Your task to perform on an android device: Go to Maps Image 0: 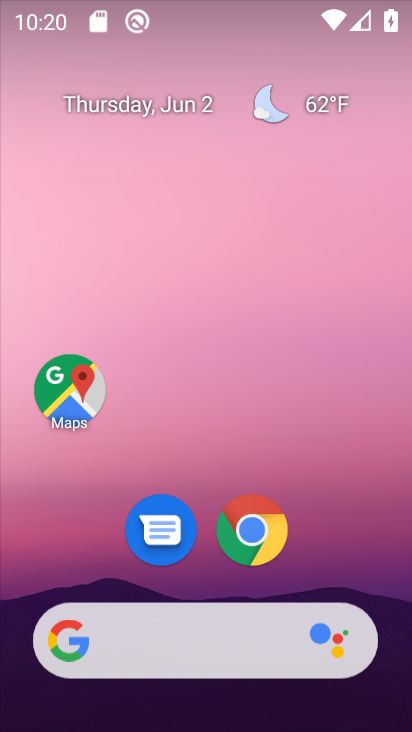
Step 0: click (210, 99)
Your task to perform on an android device: Go to Maps Image 1: 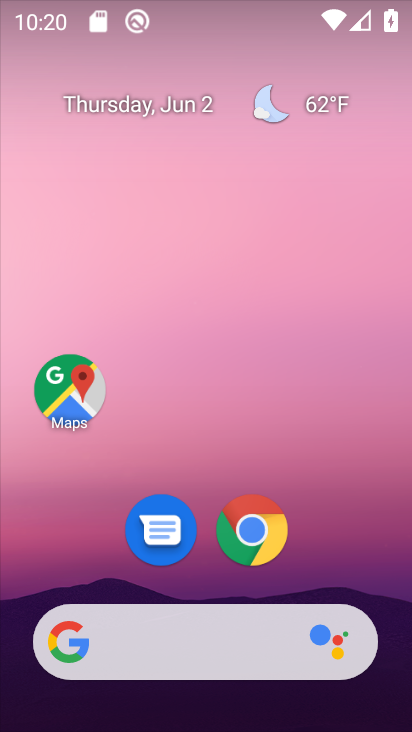
Step 1: click (253, 161)
Your task to perform on an android device: Go to Maps Image 2: 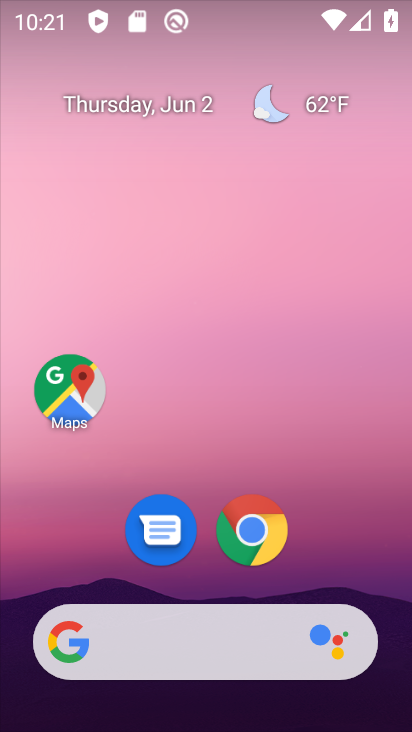
Step 2: drag from (246, 524) to (198, 58)
Your task to perform on an android device: Go to Maps Image 3: 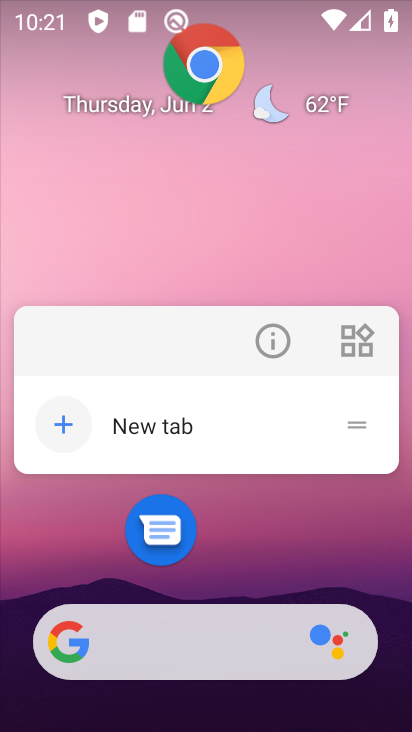
Step 3: drag from (234, 696) to (189, 150)
Your task to perform on an android device: Go to Maps Image 4: 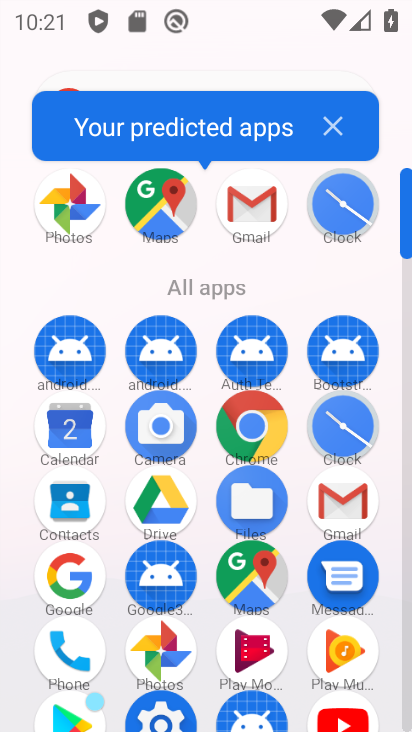
Step 4: drag from (129, 262) to (267, 245)
Your task to perform on an android device: Go to Maps Image 5: 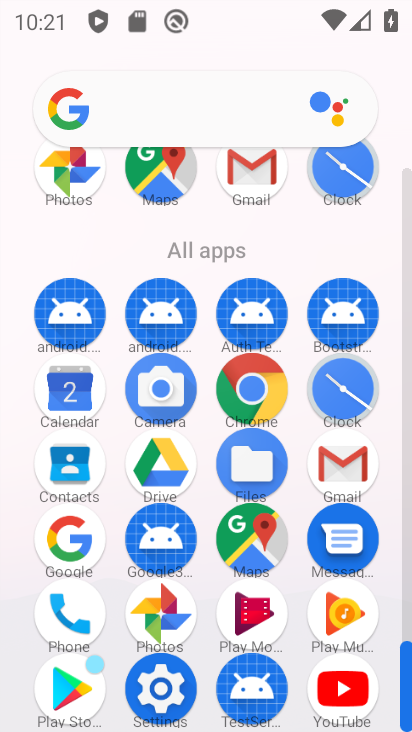
Step 5: click (316, 278)
Your task to perform on an android device: Go to Maps Image 6: 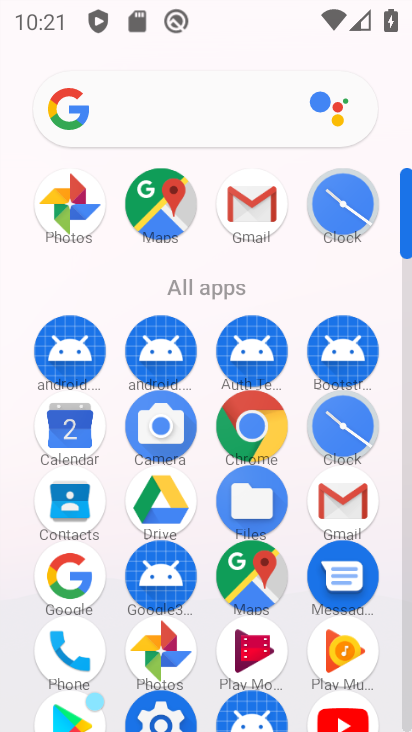
Step 6: drag from (154, 557) to (142, 229)
Your task to perform on an android device: Go to Maps Image 7: 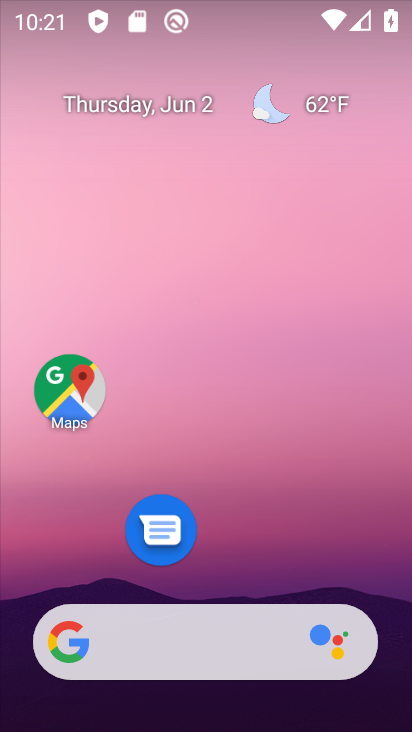
Step 7: click (211, 301)
Your task to perform on an android device: Go to Maps Image 8: 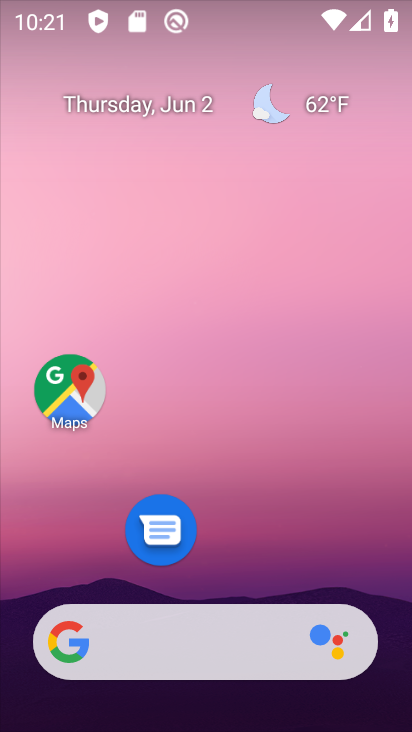
Step 8: click (69, 401)
Your task to perform on an android device: Go to Maps Image 9: 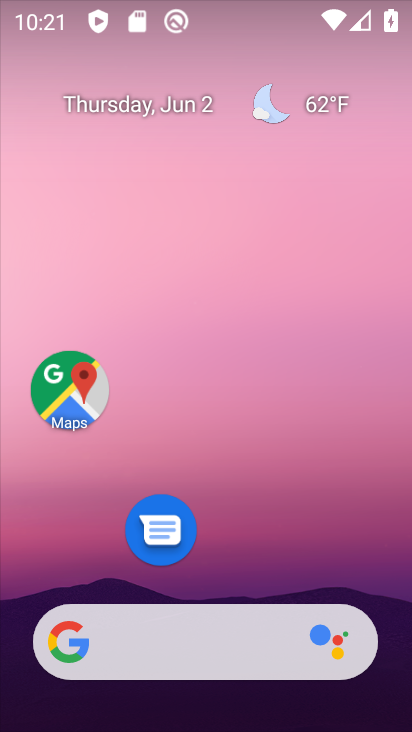
Step 9: click (87, 391)
Your task to perform on an android device: Go to Maps Image 10: 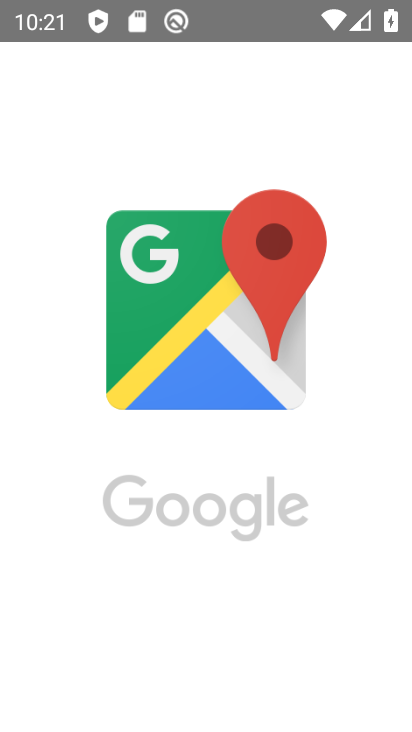
Step 10: click (83, 401)
Your task to perform on an android device: Go to Maps Image 11: 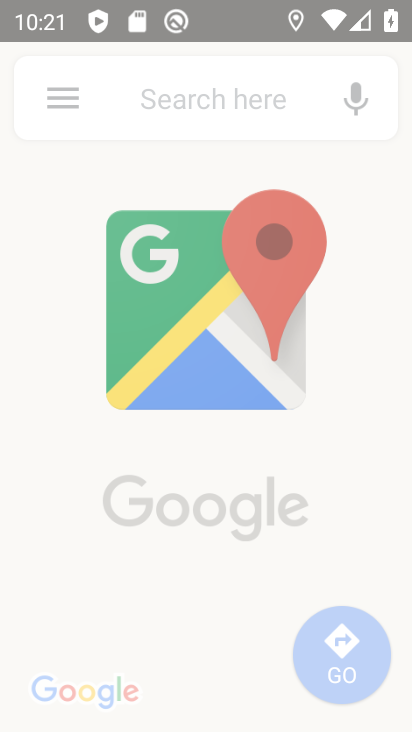
Step 11: click (79, 388)
Your task to perform on an android device: Go to Maps Image 12: 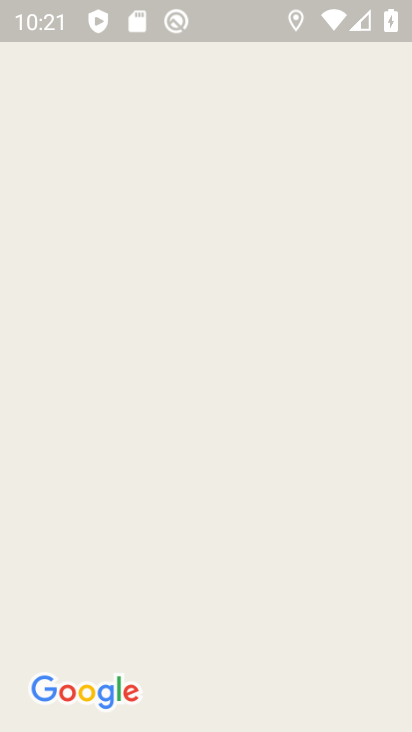
Step 12: click (148, 211)
Your task to perform on an android device: Go to Maps Image 13: 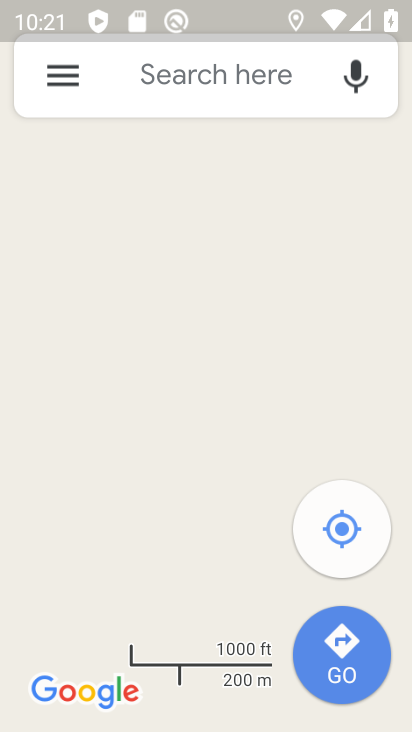
Step 13: click (146, 214)
Your task to perform on an android device: Go to Maps Image 14: 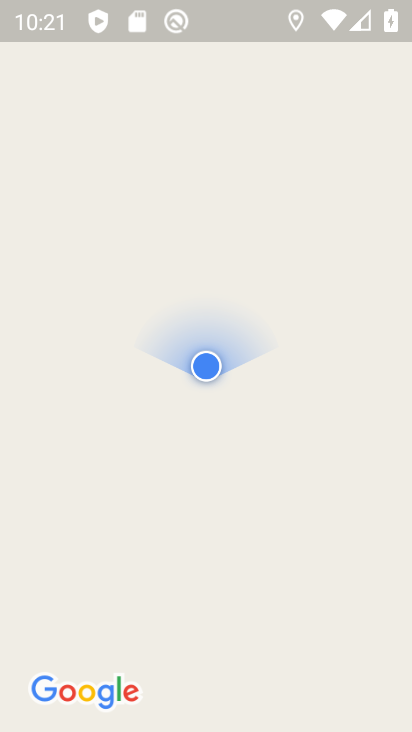
Step 14: click (159, 212)
Your task to perform on an android device: Go to Maps Image 15: 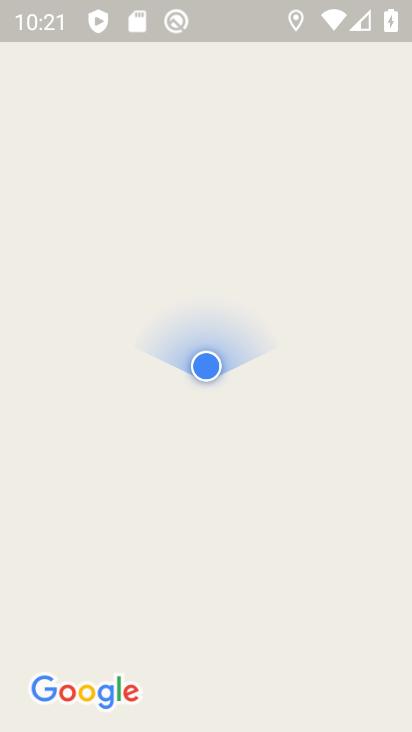
Step 15: click (160, 209)
Your task to perform on an android device: Go to Maps Image 16: 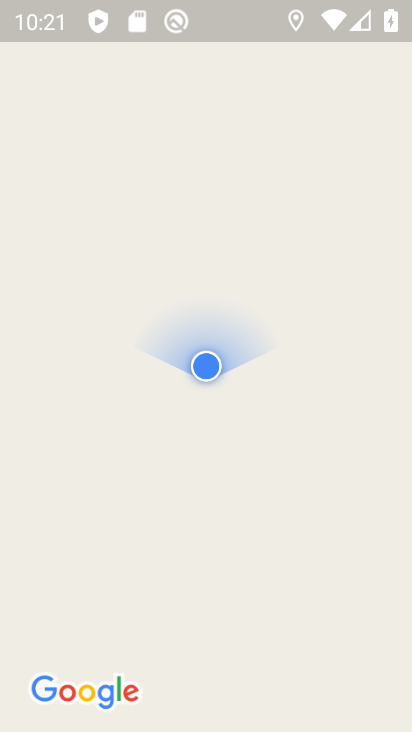
Step 16: task complete